Your task to perform on an android device: Show me productivity apps on the Play Store Image 0: 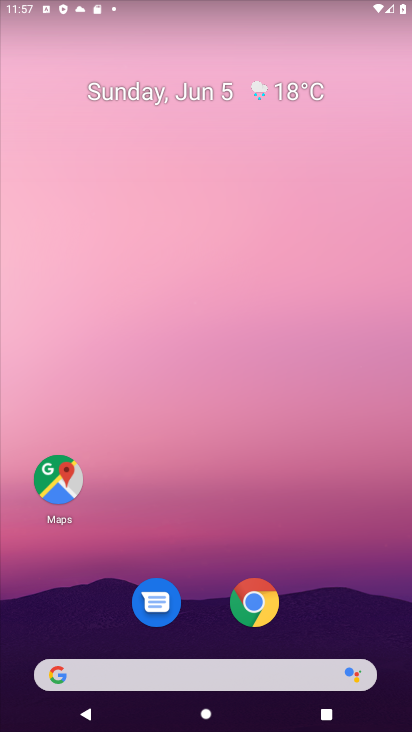
Step 0: task complete